Your task to perform on an android device: Go to notification settings Image 0: 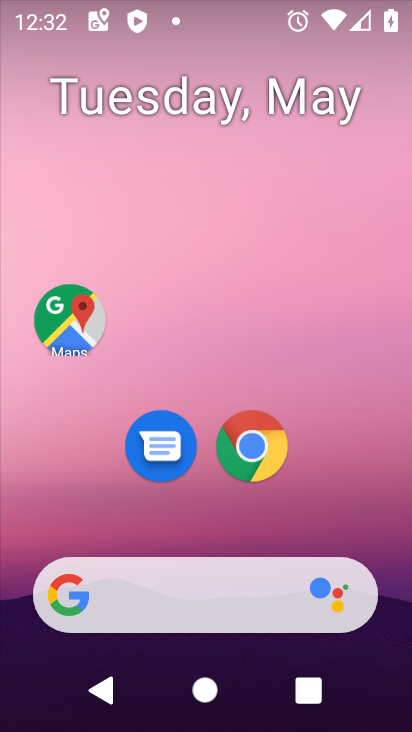
Step 0: drag from (311, 523) to (326, 169)
Your task to perform on an android device: Go to notification settings Image 1: 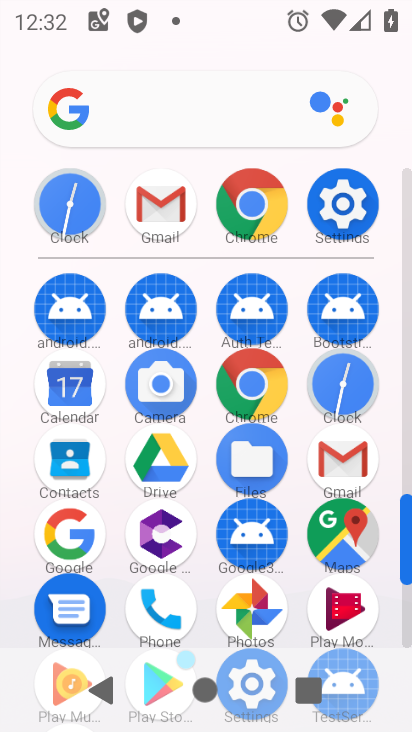
Step 1: click (336, 203)
Your task to perform on an android device: Go to notification settings Image 2: 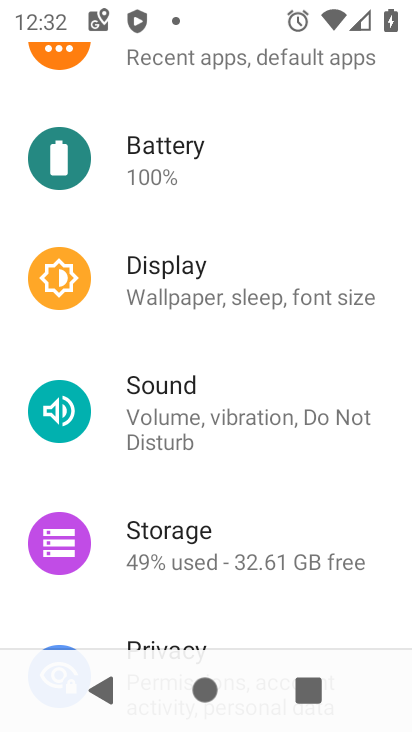
Step 2: drag from (219, 498) to (251, 329)
Your task to perform on an android device: Go to notification settings Image 3: 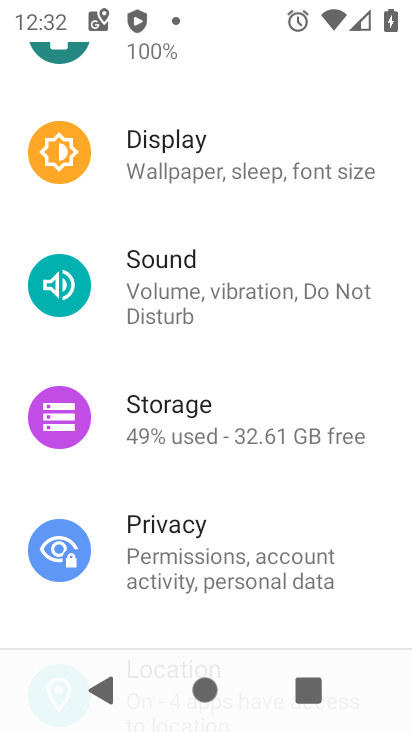
Step 3: drag from (220, 194) to (235, 584)
Your task to perform on an android device: Go to notification settings Image 4: 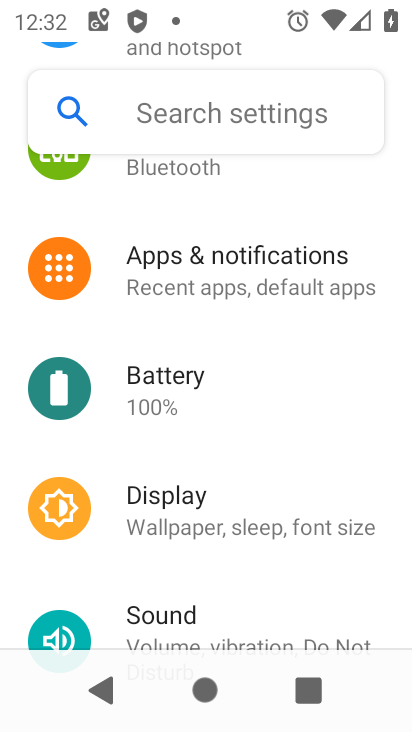
Step 4: click (213, 273)
Your task to perform on an android device: Go to notification settings Image 5: 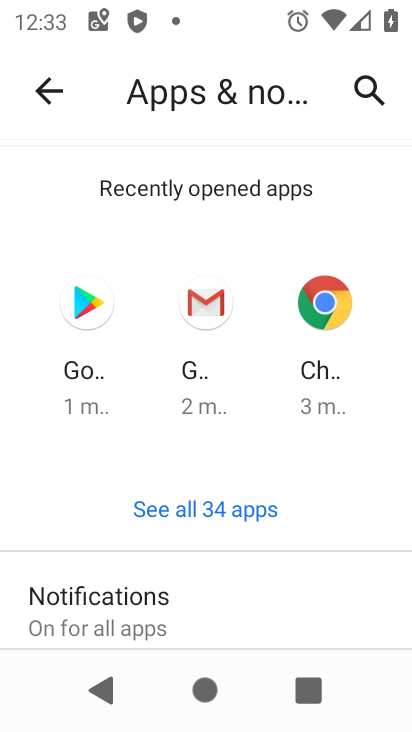
Step 5: task complete